Your task to perform on an android device: Open wifi settings Image 0: 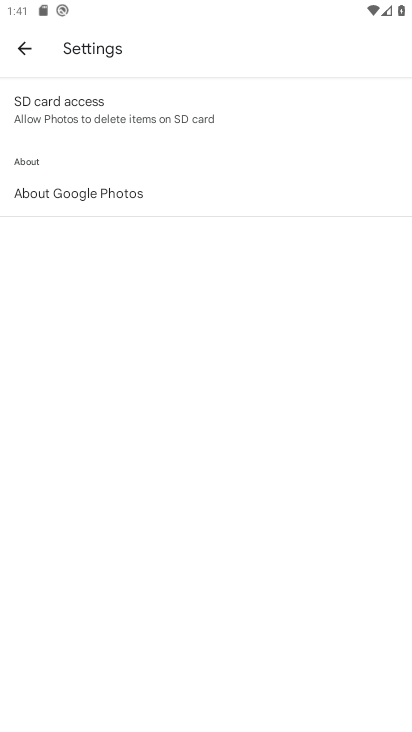
Step 0: press back button
Your task to perform on an android device: Open wifi settings Image 1: 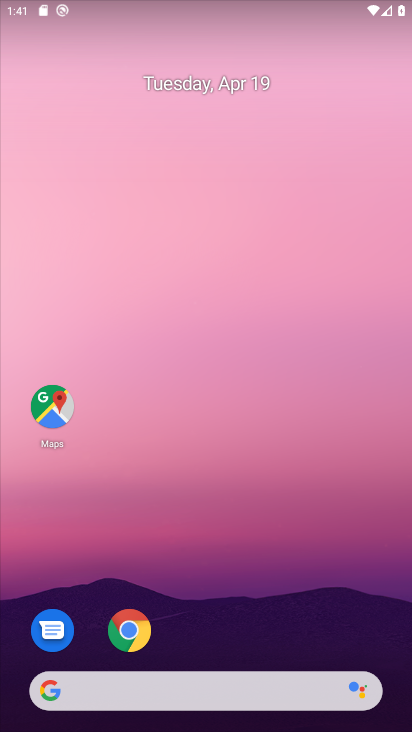
Step 1: drag from (306, 583) to (327, 21)
Your task to perform on an android device: Open wifi settings Image 2: 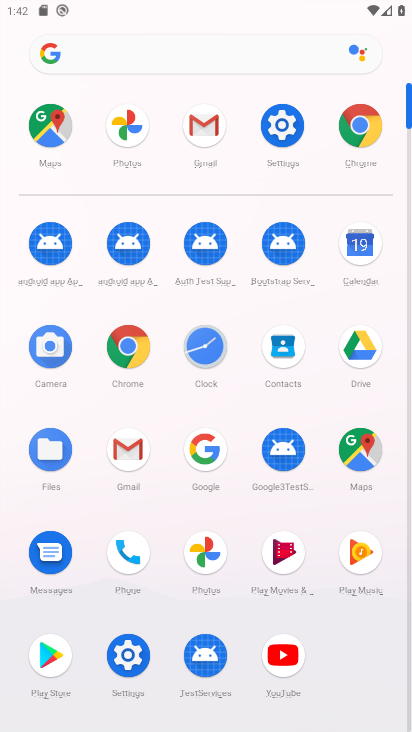
Step 2: click (284, 142)
Your task to perform on an android device: Open wifi settings Image 3: 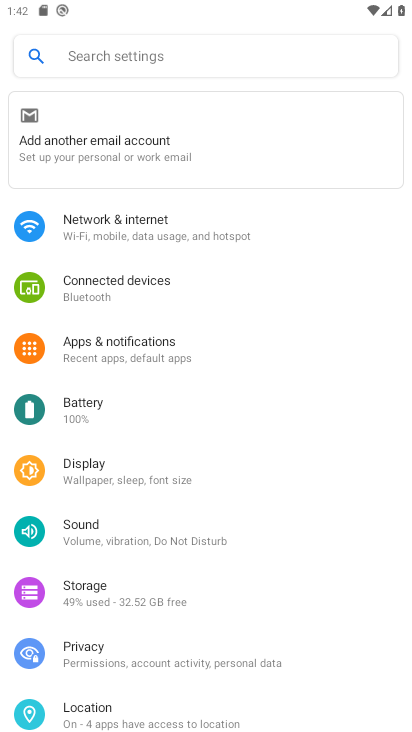
Step 3: click (203, 218)
Your task to perform on an android device: Open wifi settings Image 4: 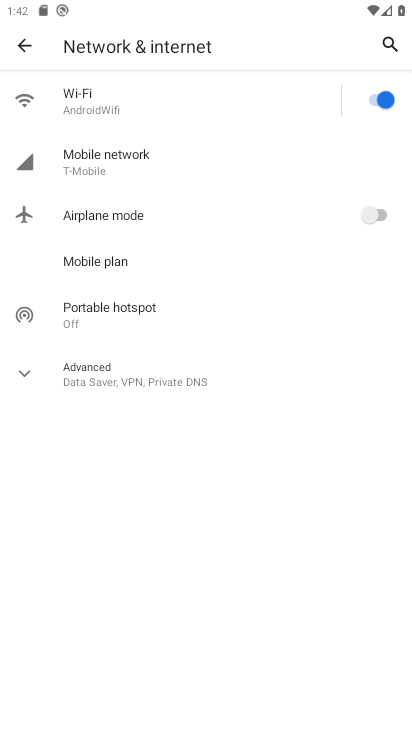
Step 4: click (195, 102)
Your task to perform on an android device: Open wifi settings Image 5: 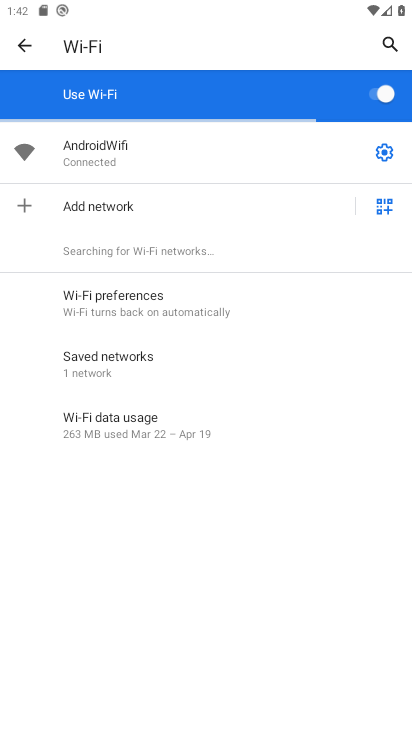
Step 5: click (378, 150)
Your task to perform on an android device: Open wifi settings Image 6: 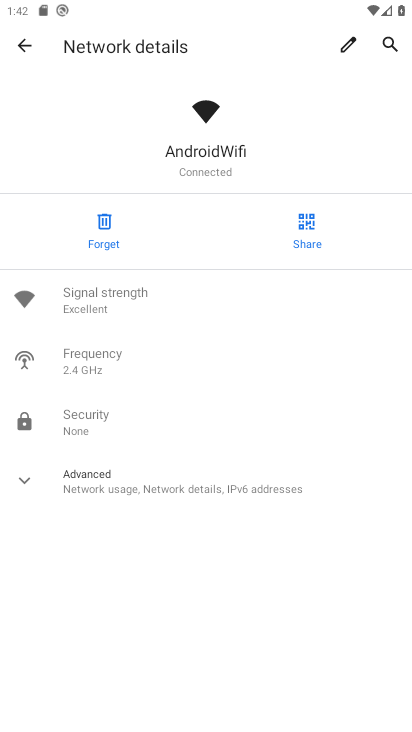
Step 6: task complete